Your task to perform on an android device: turn off airplane mode Image 0: 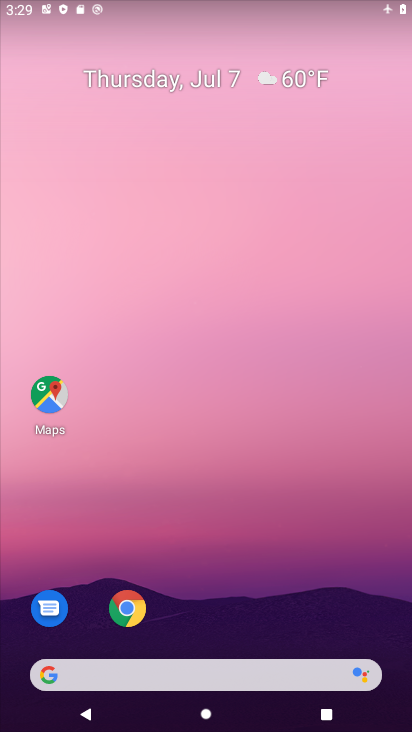
Step 0: drag from (170, 671) to (220, 244)
Your task to perform on an android device: turn off airplane mode Image 1: 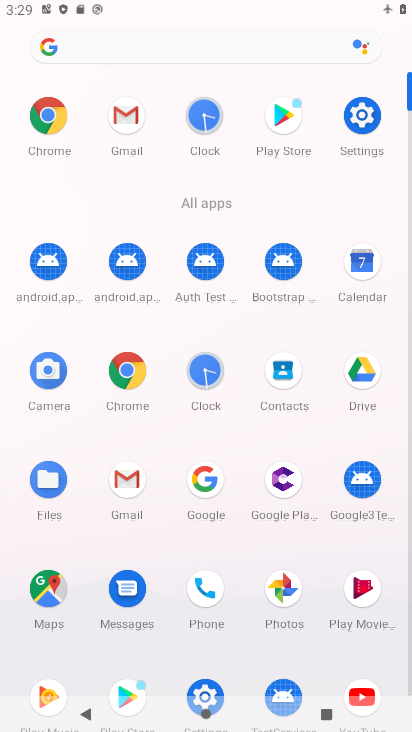
Step 1: click (378, 113)
Your task to perform on an android device: turn off airplane mode Image 2: 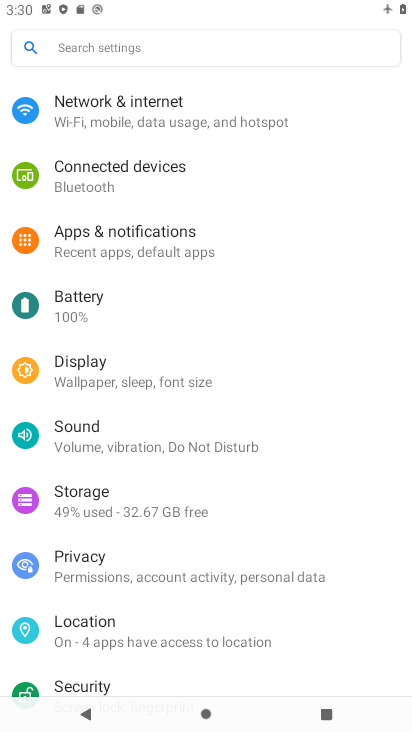
Step 2: click (194, 114)
Your task to perform on an android device: turn off airplane mode Image 3: 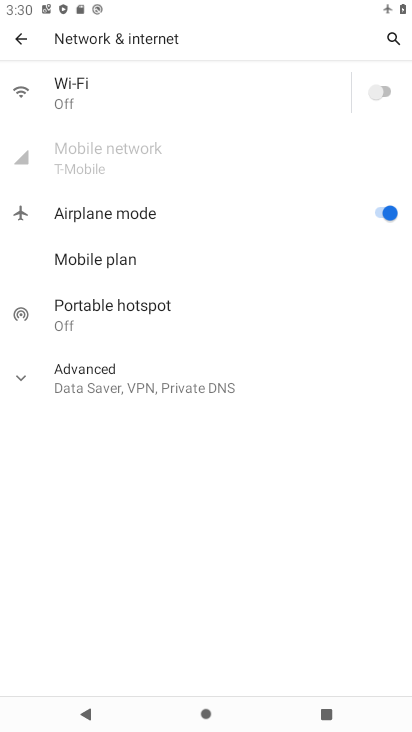
Step 3: click (381, 218)
Your task to perform on an android device: turn off airplane mode Image 4: 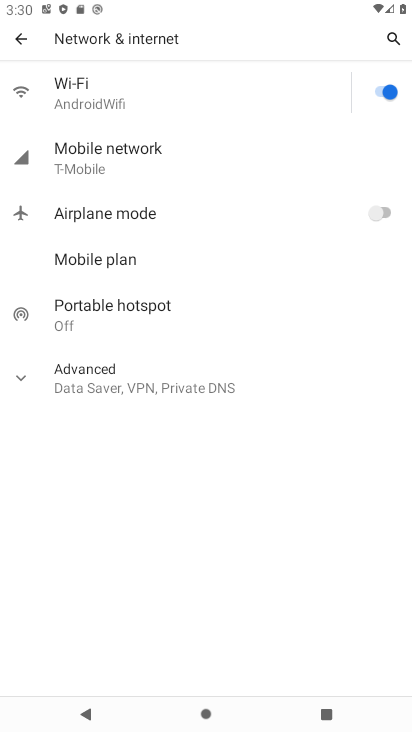
Step 4: task complete